Your task to perform on an android device: Go to battery settings Image 0: 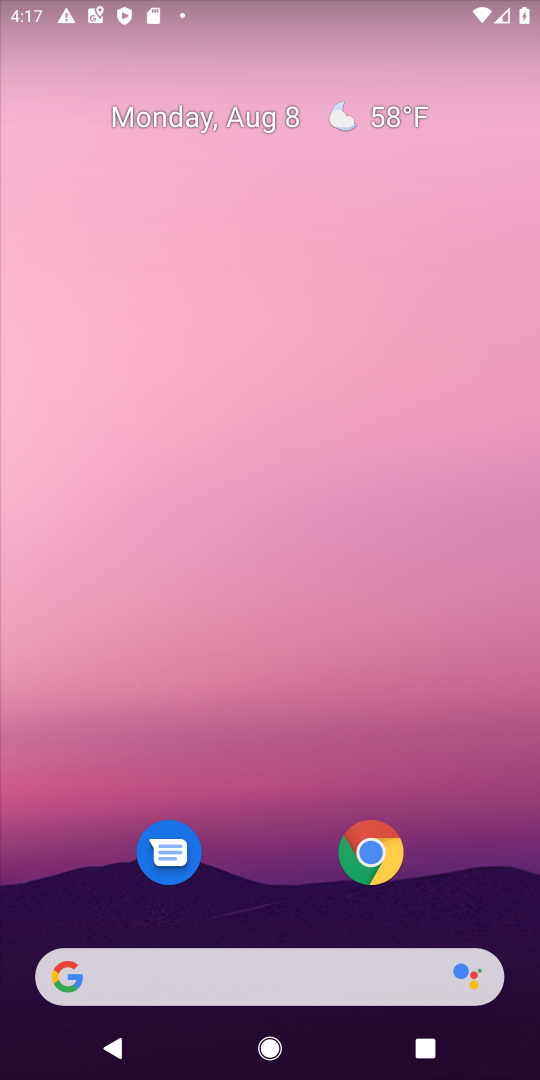
Step 0: drag from (286, 489) to (384, 50)
Your task to perform on an android device: Go to battery settings Image 1: 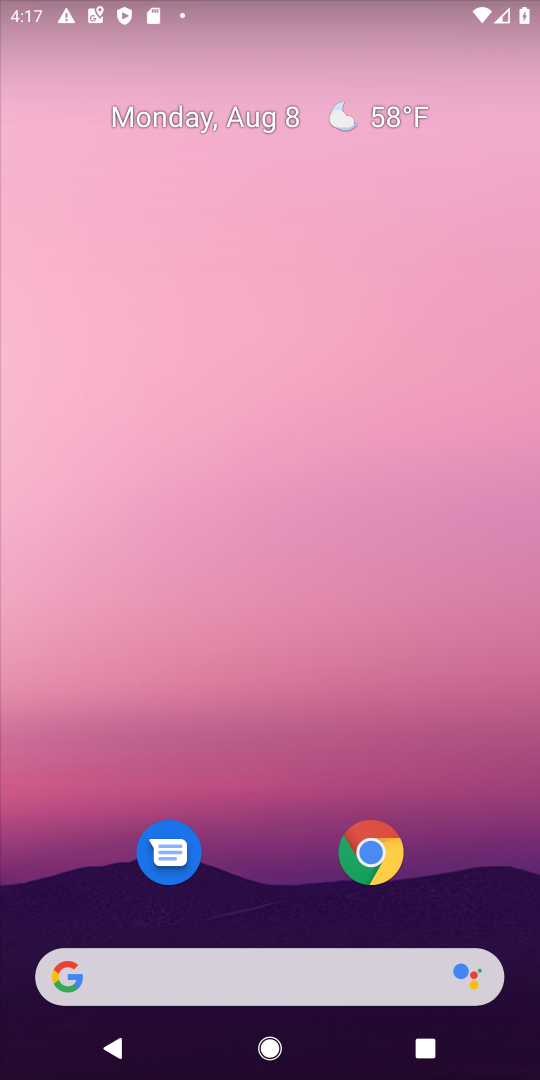
Step 1: drag from (247, 831) to (337, 106)
Your task to perform on an android device: Go to battery settings Image 2: 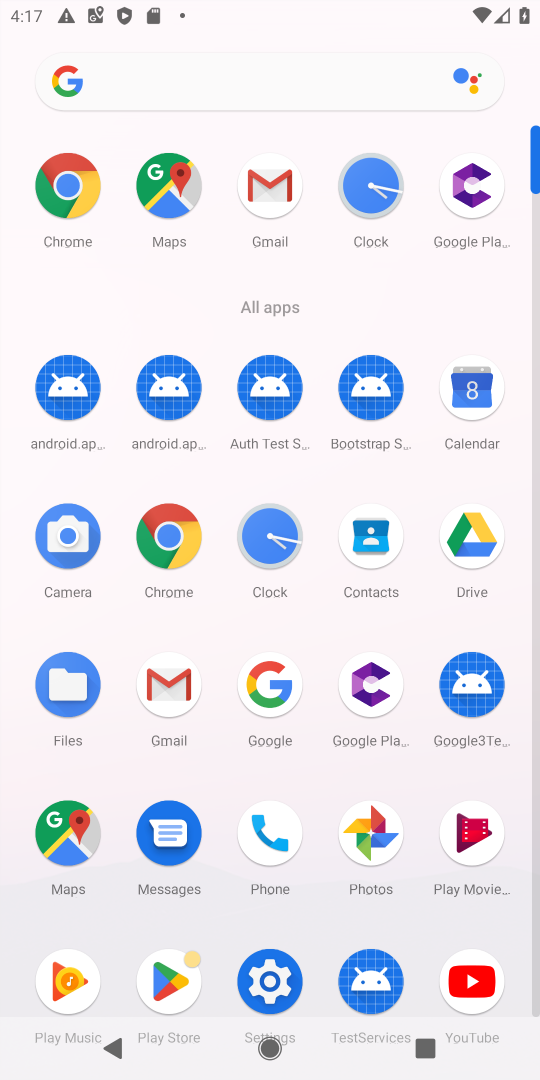
Step 2: click (256, 988)
Your task to perform on an android device: Go to battery settings Image 3: 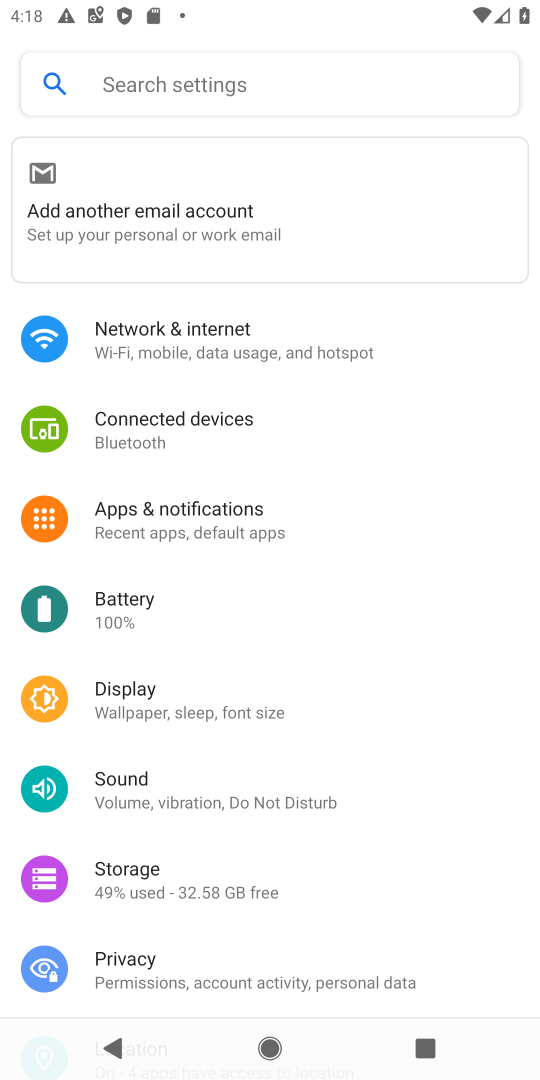
Step 3: drag from (328, 925) to (318, 644)
Your task to perform on an android device: Go to battery settings Image 4: 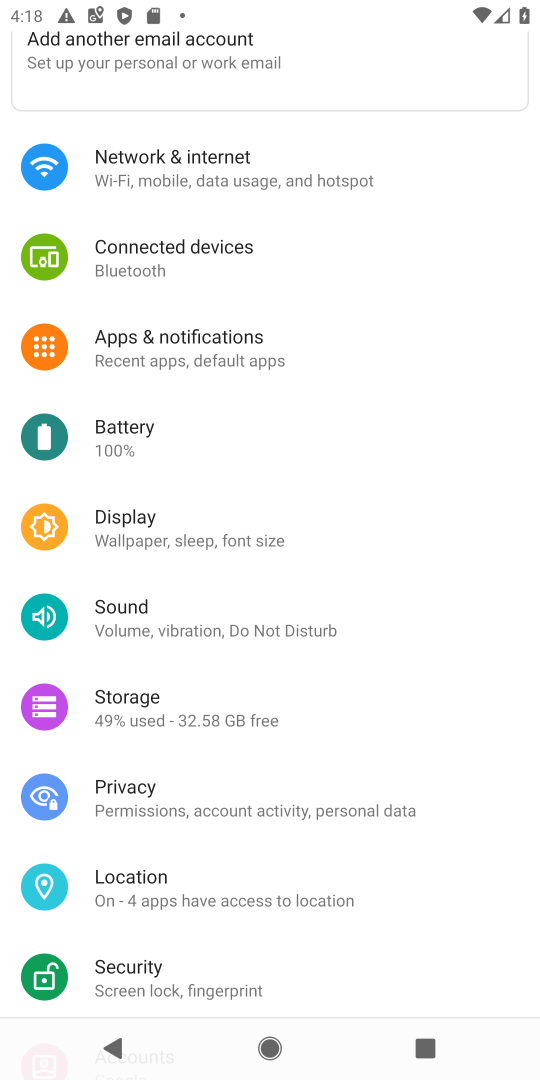
Step 4: click (122, 429)
Your task to perform on an android device: Go to battery settings Image 5: 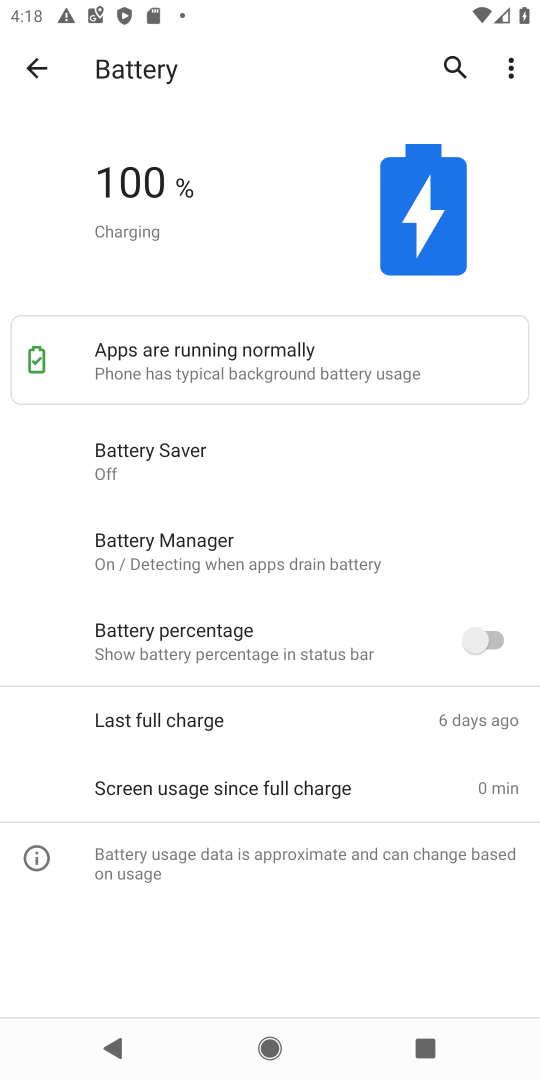
Step 5: task complete